Your task to perform on an android device: turn vacation reply on in the gmail app Image 0: 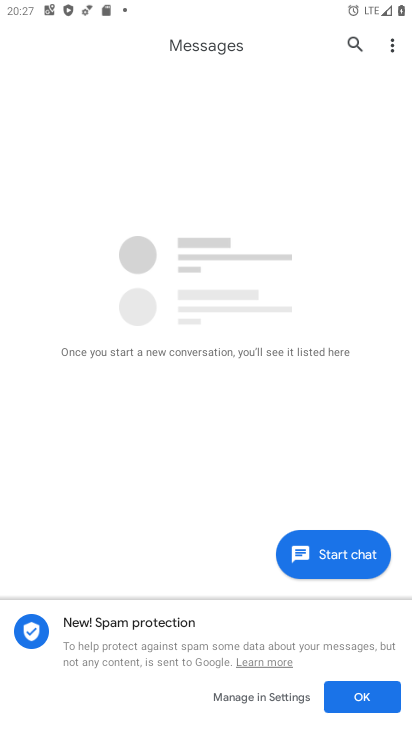
Step 0: press home button
Your task to perform on an android device: turn vacation reply on in the gmail app Image 1: 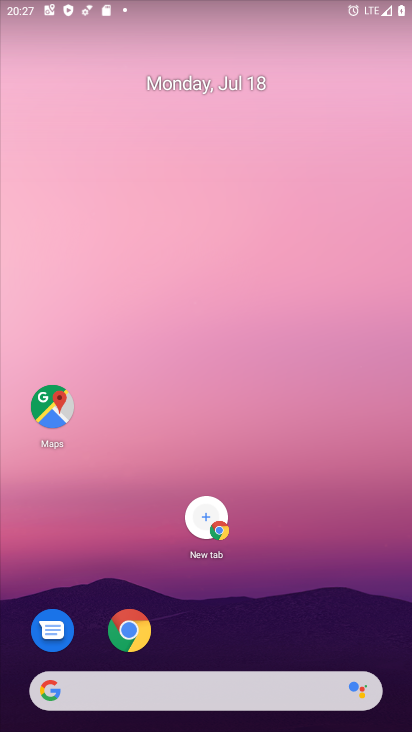
Step 1: drag from (166, 662) to (284, 202)
Your task to perform on an android device: turn vacation reply on in the gmail app Image 2: 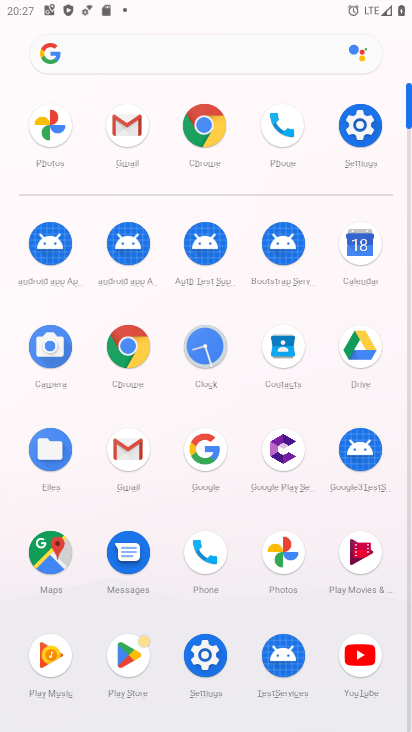
Step 2: click (123, 136)
Your task to perform on an android device: turn vacation reply on in the gmail app Image 3: 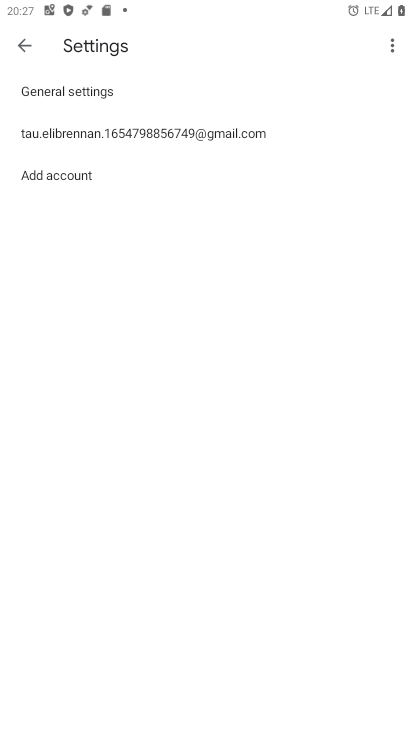
Step 3: click (123, 136)
Your task to perform on an android device: turn vacation reply on in the gmail app Image 4: 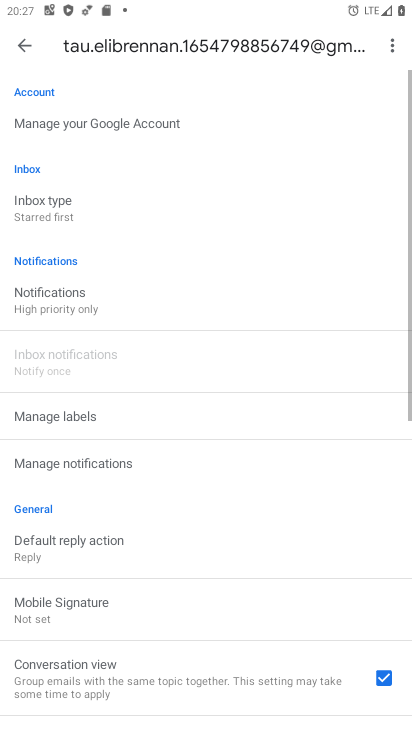
Step 4: drag from (117, 666) to (183, 217)
Your task to perform on an android device: turn vacation reply on in the gmail app Image 5: 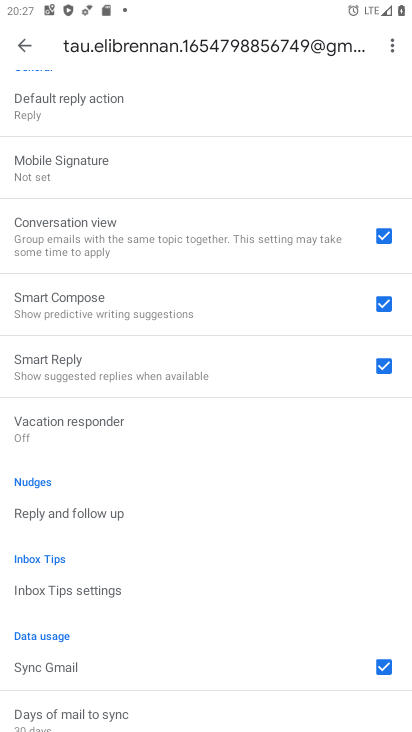
Step 5: drag from (91, 707) to (183, 375)
Your task to perform on an android device: turn vacation reply on in the gmail app Image 6: 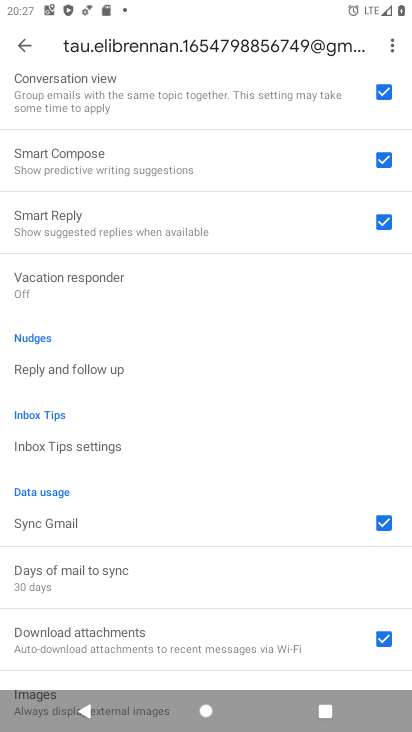
Step 6: drag from (114, 631) to (212, 335)
Your task to perform on an android device: turn vacation reply on in the gmail app Image 7: 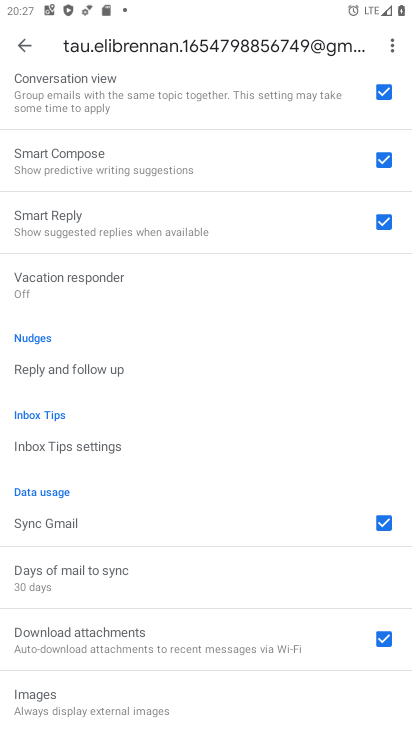
Step 7: click (100, 282)
Your task to perform on an android device: turn vacation reply on in the gmail app Image 8: 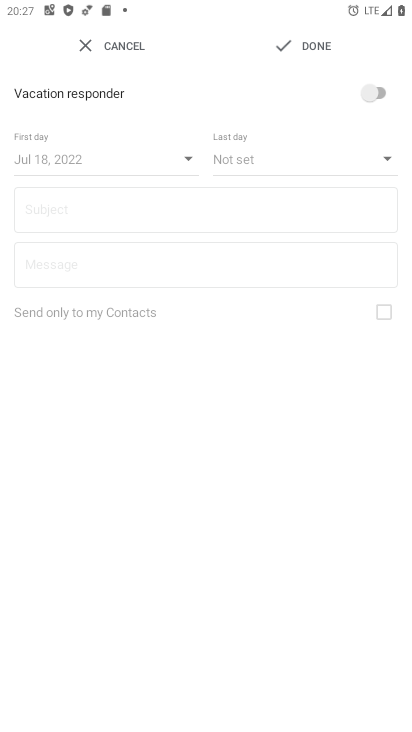
Step 8: click (375, 95)
Your task to perform on an android device: turn vacation reply on in the gmail app Image 9: 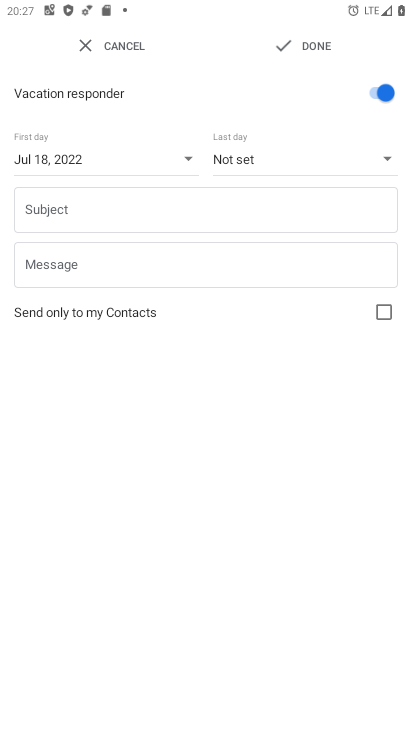
Step 9: click (299, 43)
Your task to perform on an android device: turn vacation reply on in the gmail app Image 10: 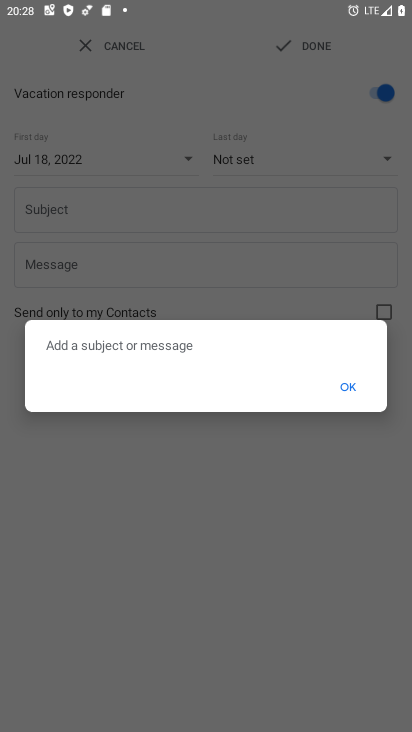
Step 10: click (351, 382)
Your task to perform on an android device: turn vacation reply on in the gmail app Image 11: 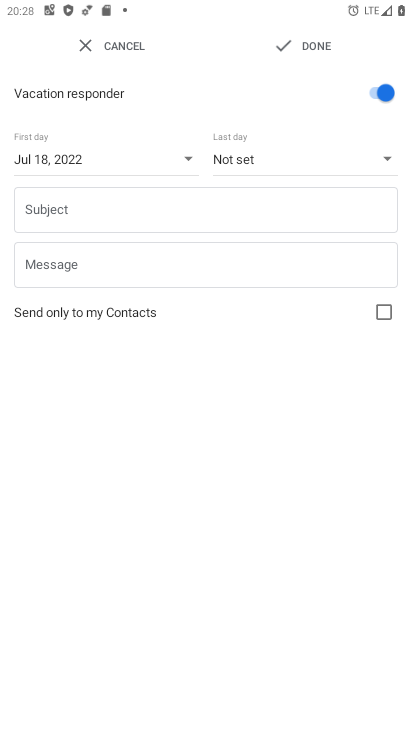
Step 11: task complete